Your task to perform on an android device: Open calendar and show me the fourth week of next month Image 0: 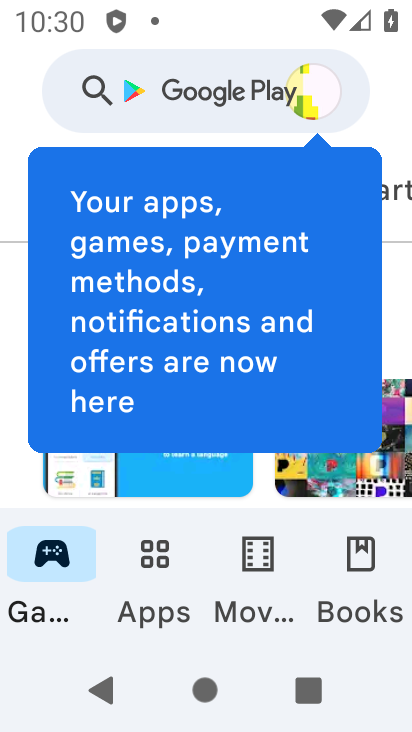
Step 0: press home button
Your task to perform on an android device: Open calendar and show me the fourth week of next month Image 1: 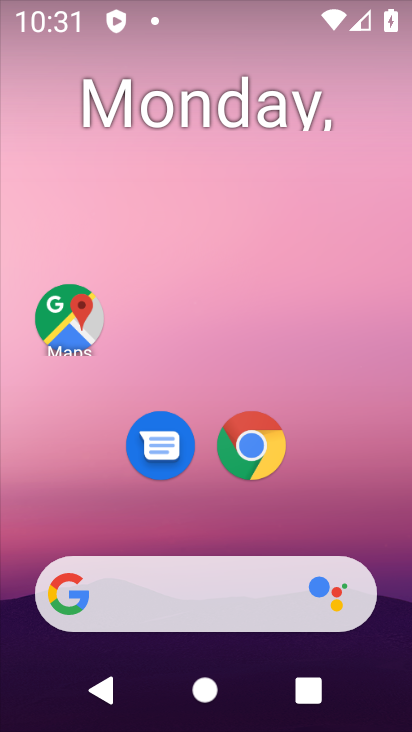
Step 1: drag from (312, 490) to (96, 98)
Your task to perform on an android device: Open calendar and show me the fourth week of next month Image 2: 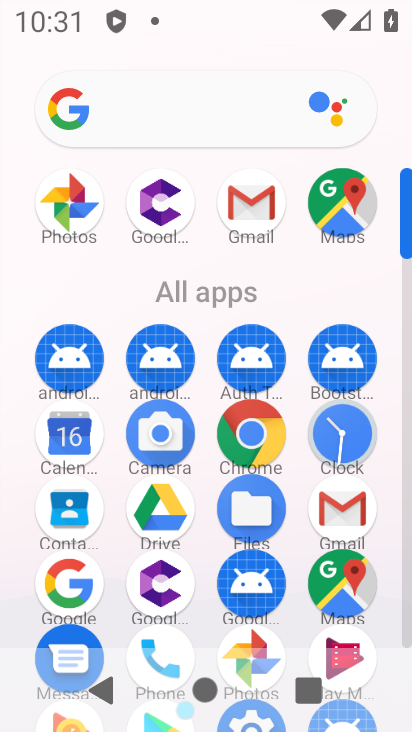
Step 2: click (85, 431)
Your task to perform on an android device: Open calendar and show me the fourth week of next month Image 3: 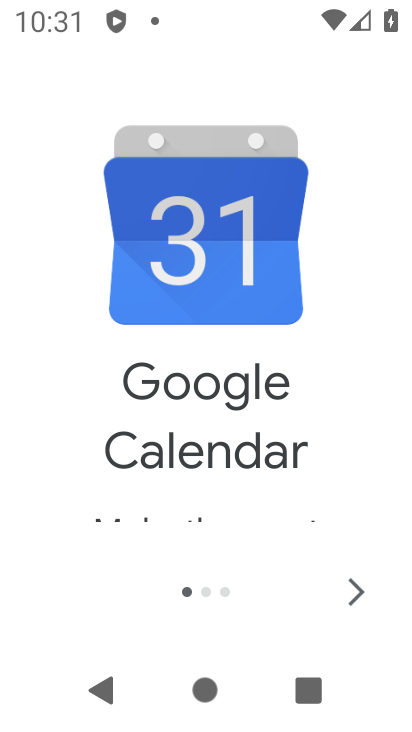
Step 3: click (359, 590)
Your task to perform on an android device: Open calendar and show me the fourth week of next month Image 4: 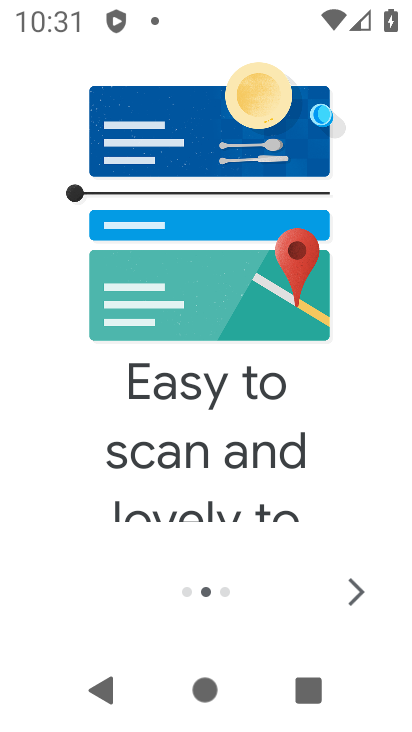
Step 4: click (355, 589)
Your task to perform on an android device: Open calendar and show me the fourth week of next month Image 5: 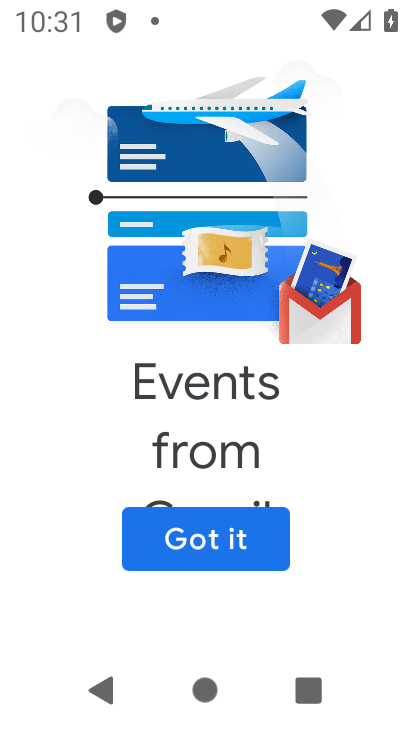
Step 5: click (231, 550)
Your task to perform on an android device: Open calendar and show me the fourth week of next month Image 6: 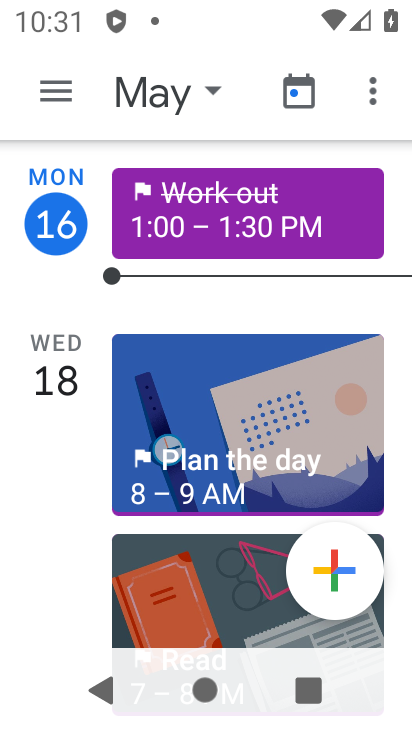
Step 6: click (176, 108)
Your task to perform on an android device: Open calendar and show me the fourth week of next month Image 7: 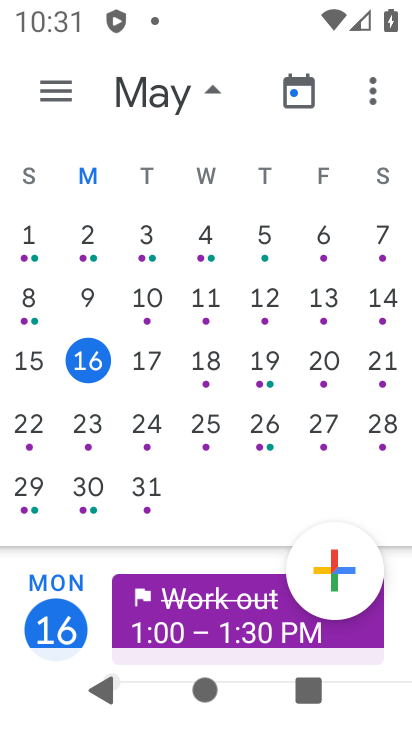
Step 7: drag from (303, 390) to (2, 385)
Your task to perform on an android device: Open calendar and show me the fourth week of next month Image 8: 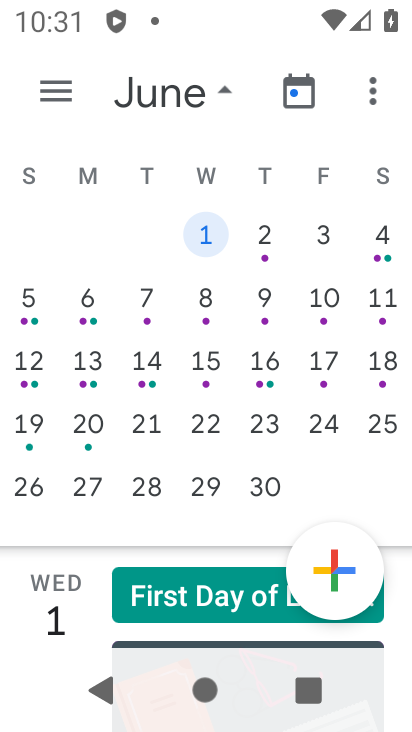
Step 8: click (28, 430)
Your task to perform on an android device: Open calendar and show me the fourth week of next month Image 9: 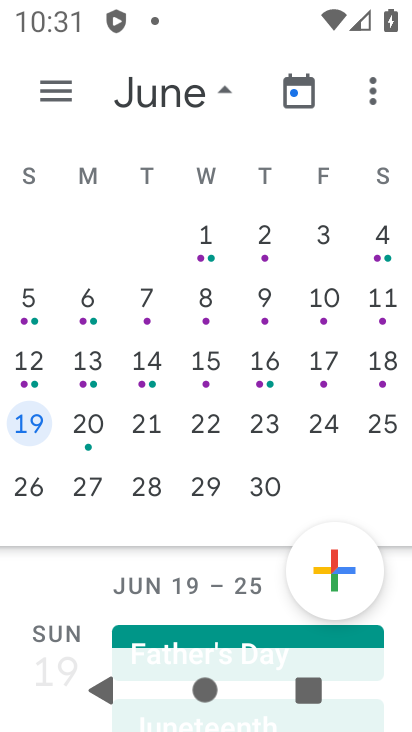
Step 9: click (61, 88)
Your task to perform on an android device: Open calendar and show me the fourth week of next month Image 10: 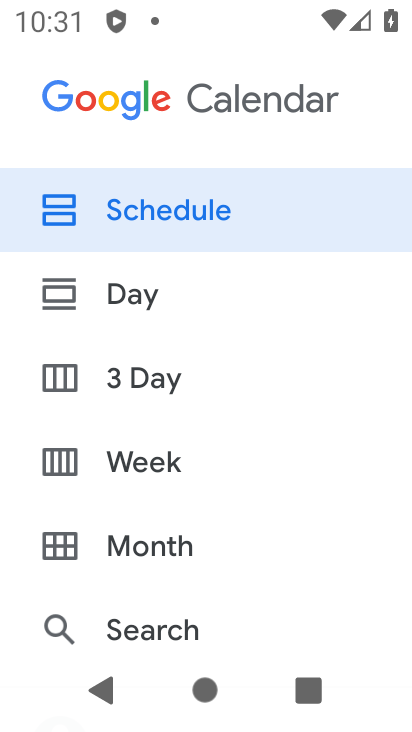
Step 10: click (103, 461)
Your task to perform on an android device: Open calendar and show me the fourth week of next month Image 11: 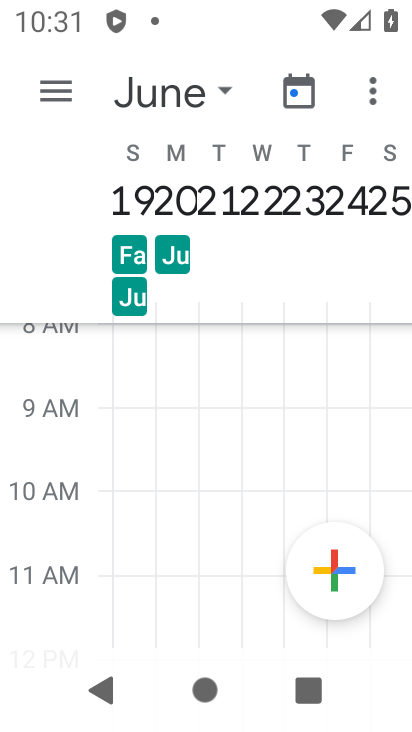
Step 11: task complete